Your task to perform on an android device: Search for the new nike air max 270 on Nike.com Image 0: 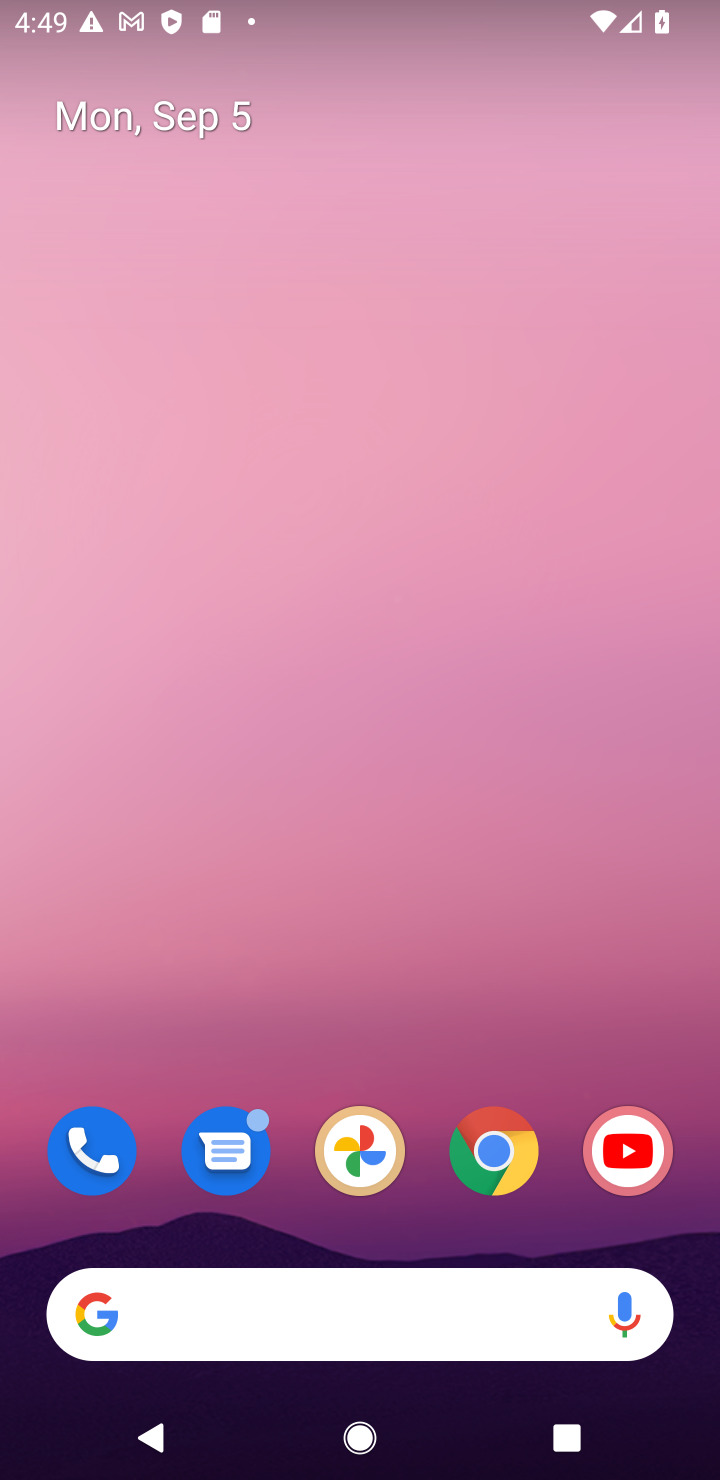
Step 0: click (488, 533)
Your task to perform on an android device: Search for the new nike air max 270 on Nike.com Image 1: 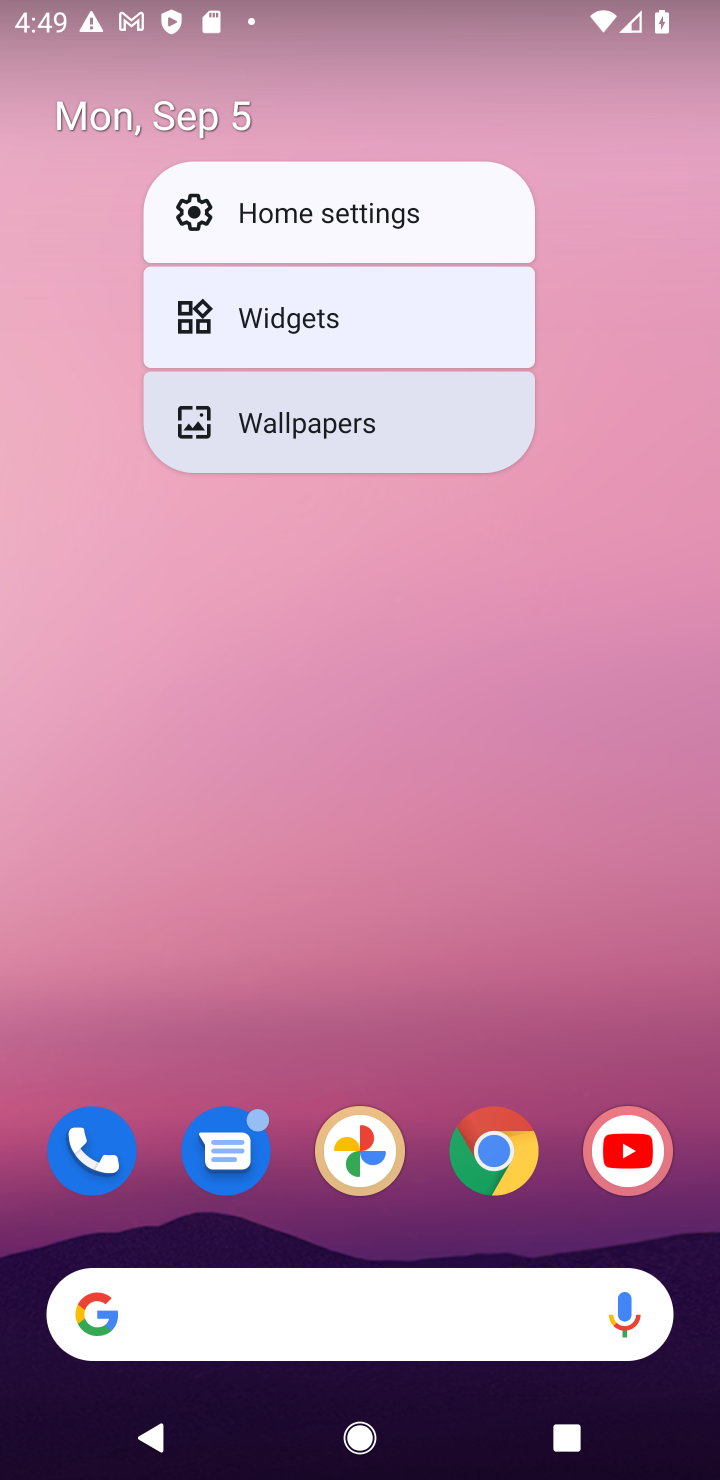
Step 1: click (525, 1173)
Your task to perform on an android device: Search for the new nike air max 270 on Nike.com Image 2: 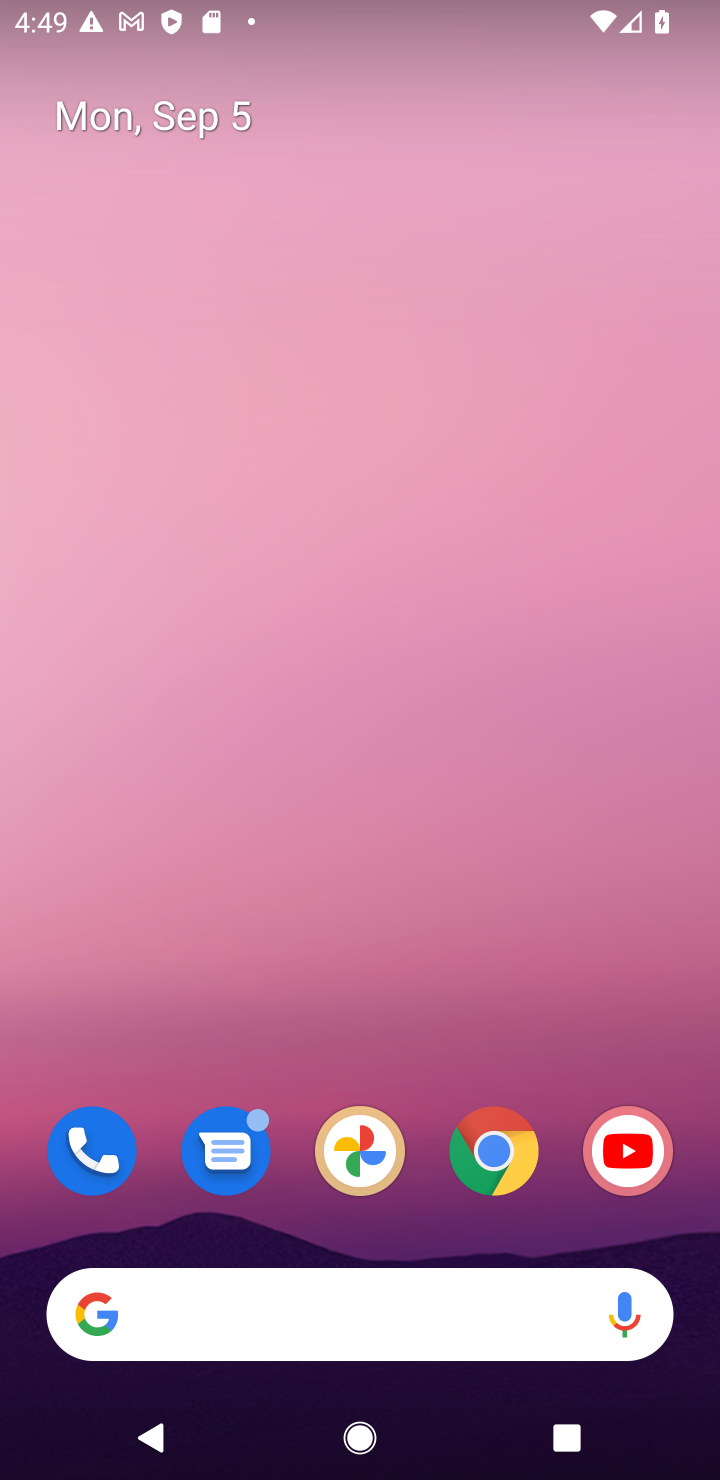
Step 2: click (525, 1173)
Your task to perform on an android device: Search for the new nike air max 270 on Nike.com Image 3: 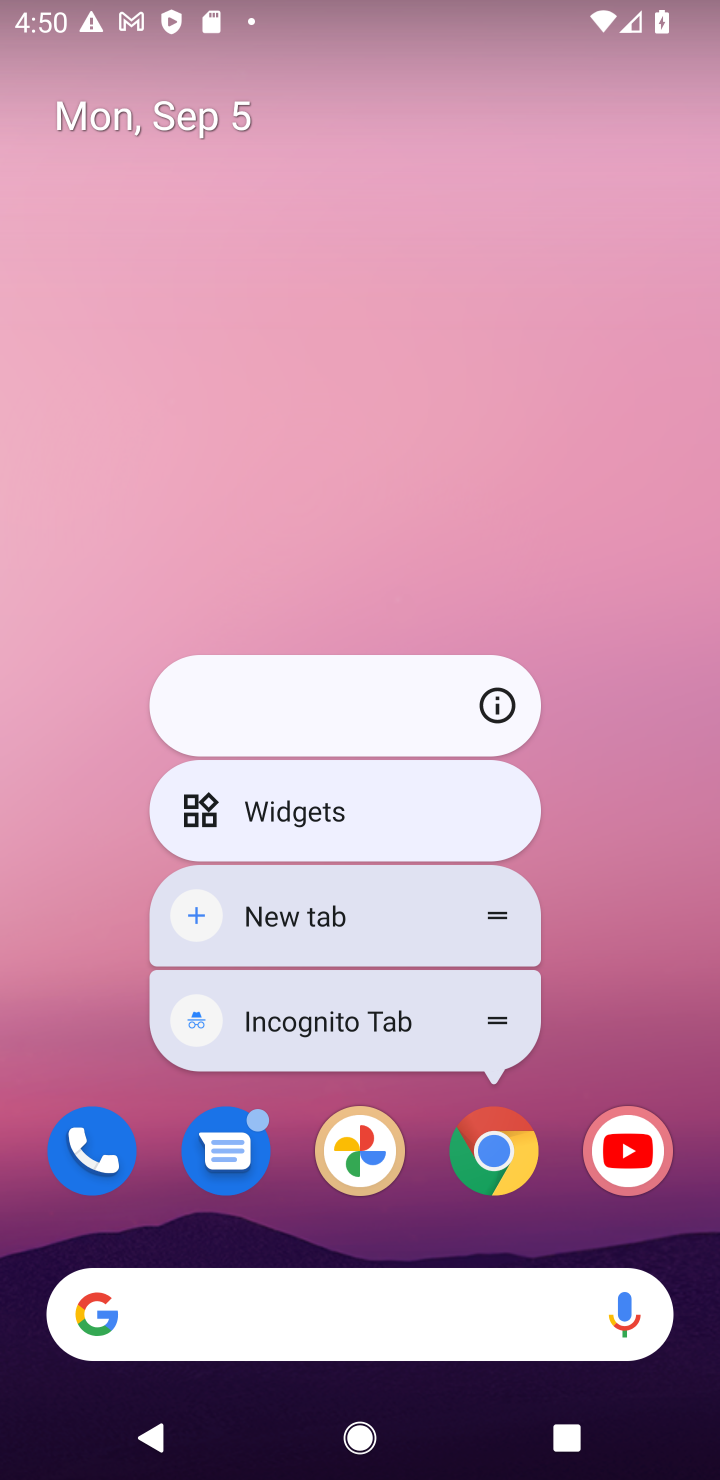
Step 3: click (491, 1190)
Your task to perform on an android device: Search for the new nike air max 270 on Nike.com Image 4: 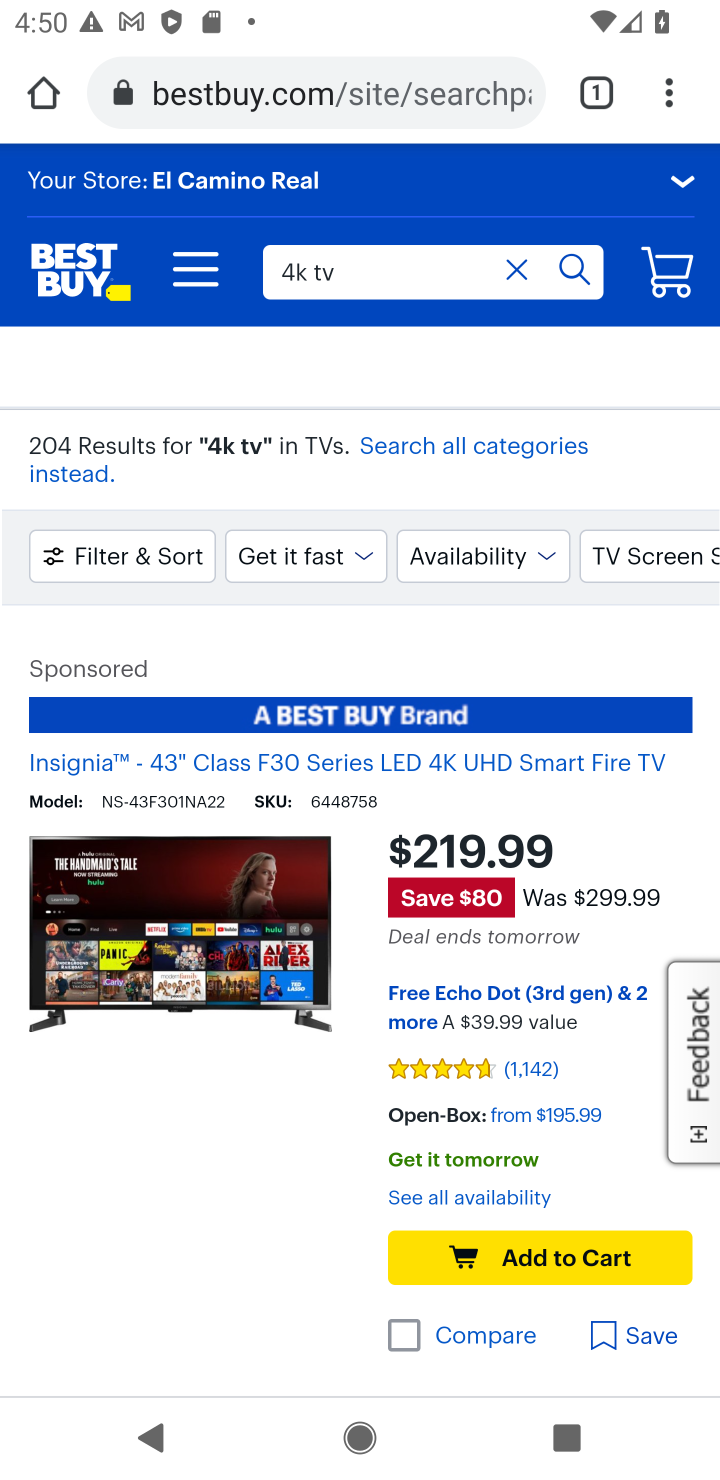
Step 4: click (446, 84)
Your task to perform on an android device: Search for the new nike air max 270 on Nike.com Image 5: 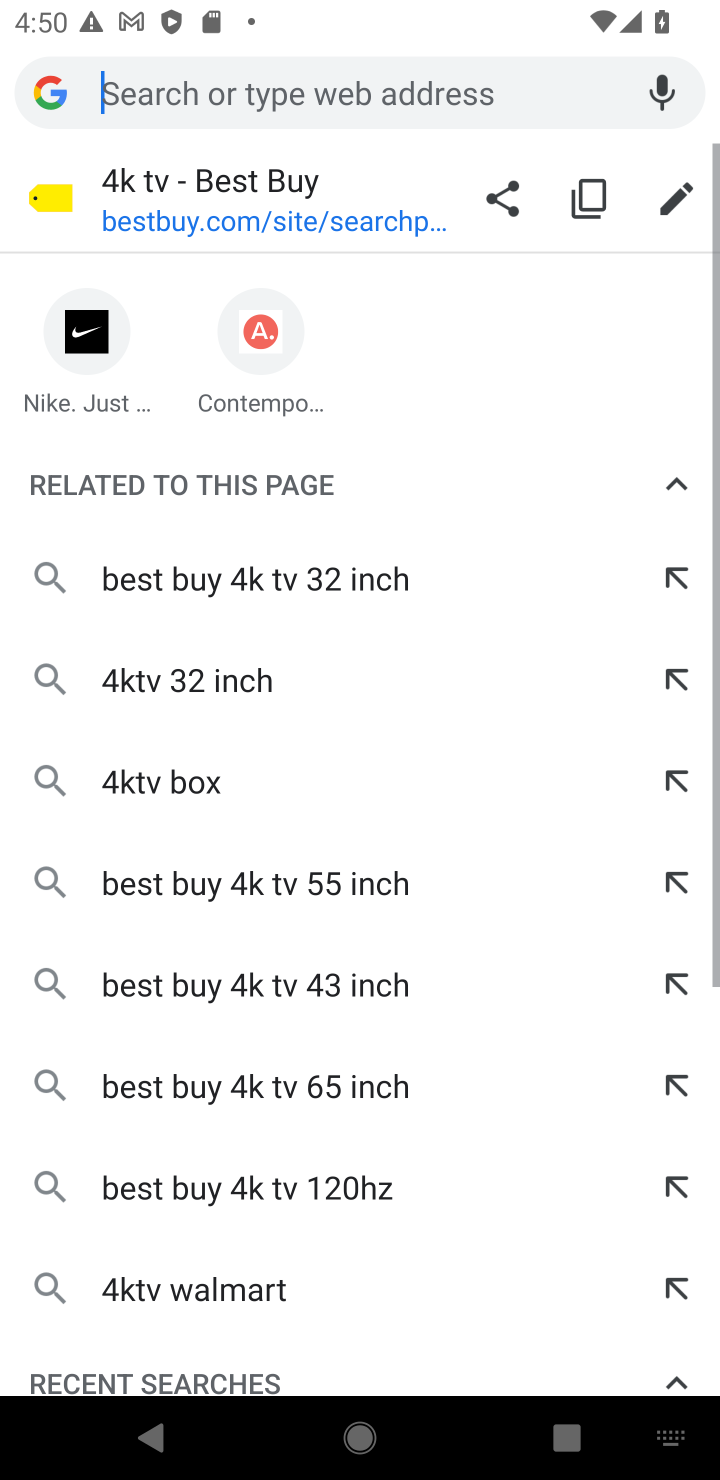
Step 5: click (446, 84)
Your task to perform on an android device: Search for the new nike air max 270 on Nike.com Image 6: 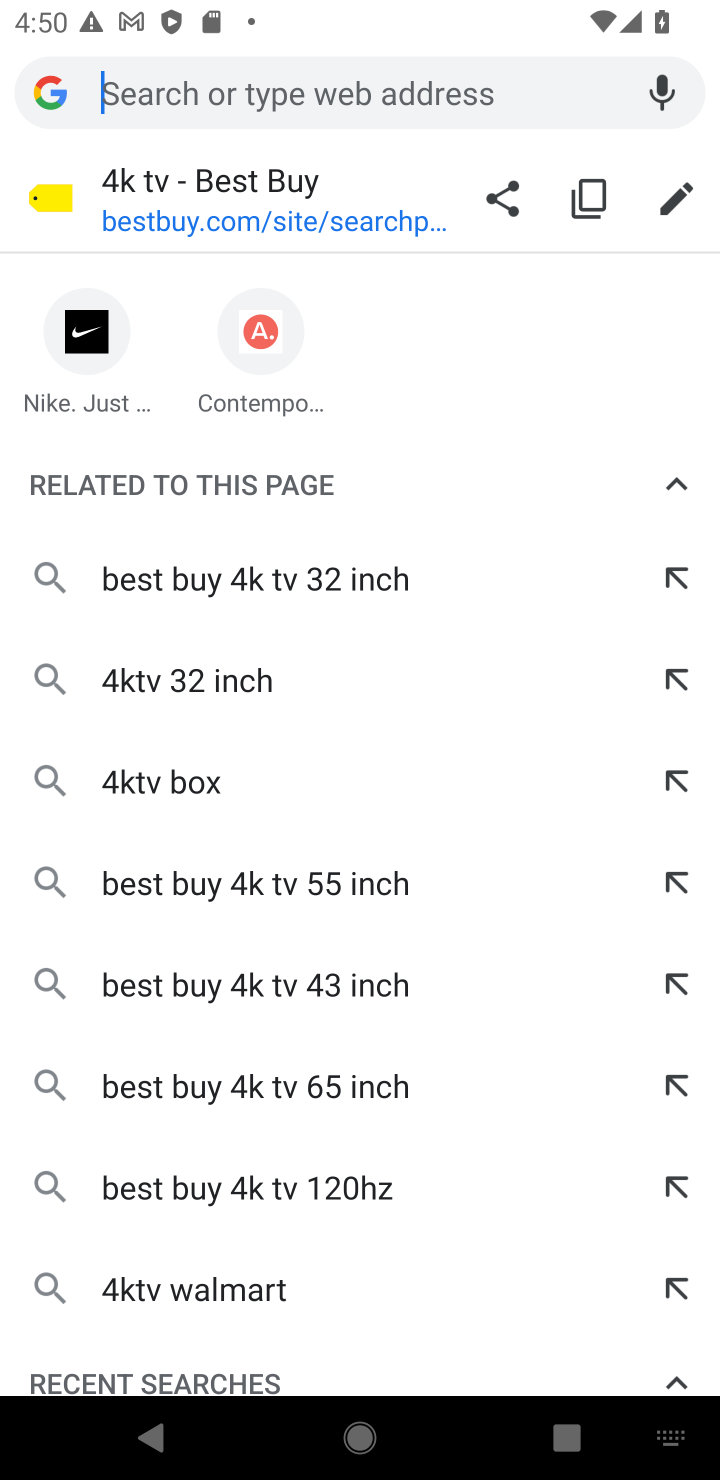
Step 6: type "nike.com"
Your task to perform on an android device: Search for the new nike air max 270 on Nike.com Image 7: 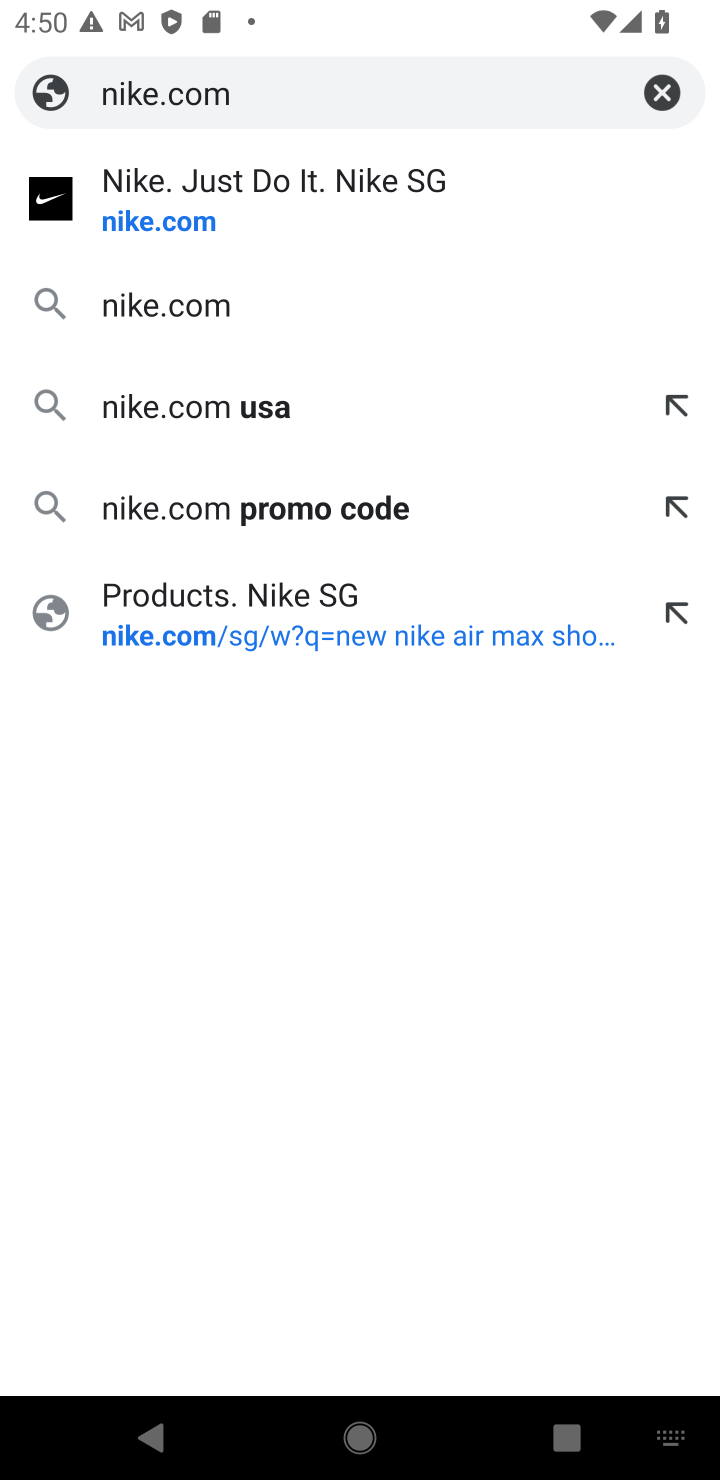
Step 7: click (322, 203)
Your task to perform on an android device: Search for the new nike air max 270 on Nike.com Image 8: 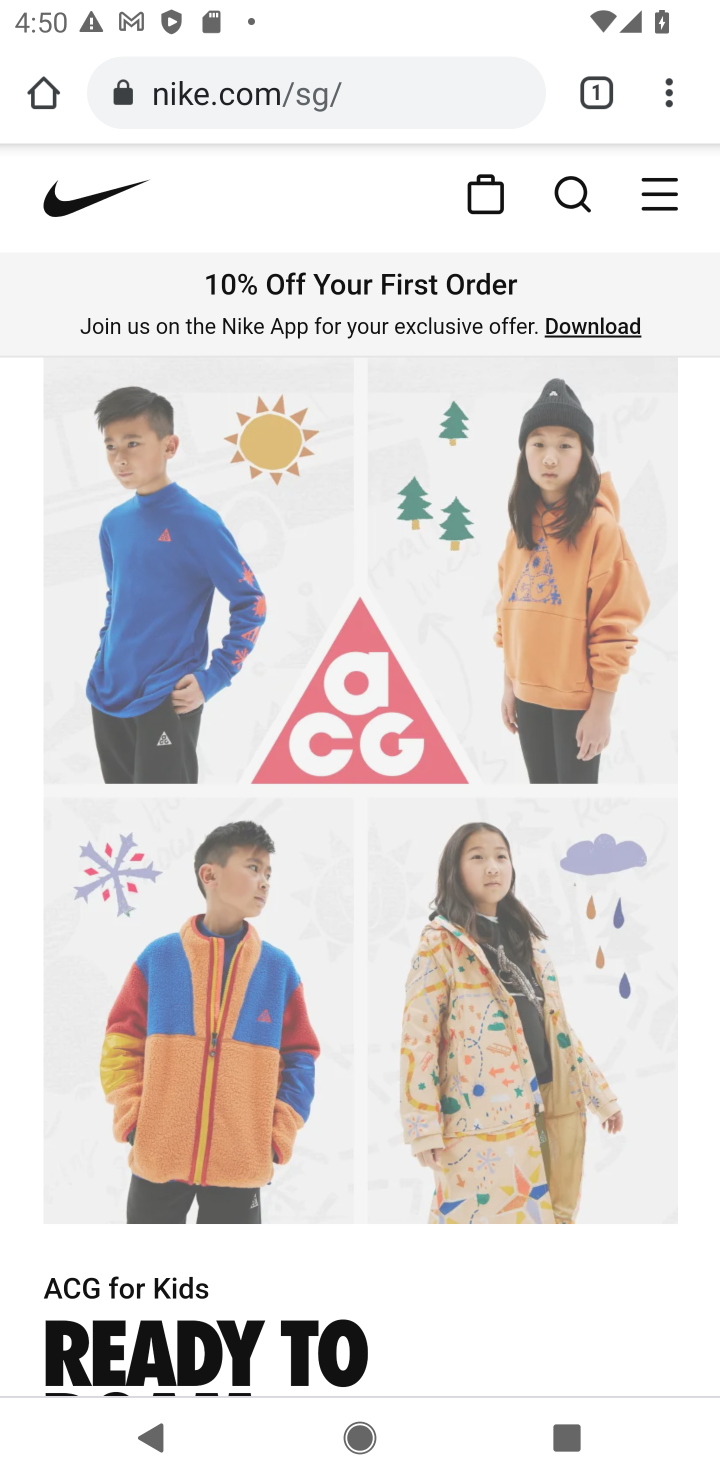
Step 8: click (574, 191)
Your task to perform on an android device: Search for the new nike air max 270 on Nike.com Image 9: 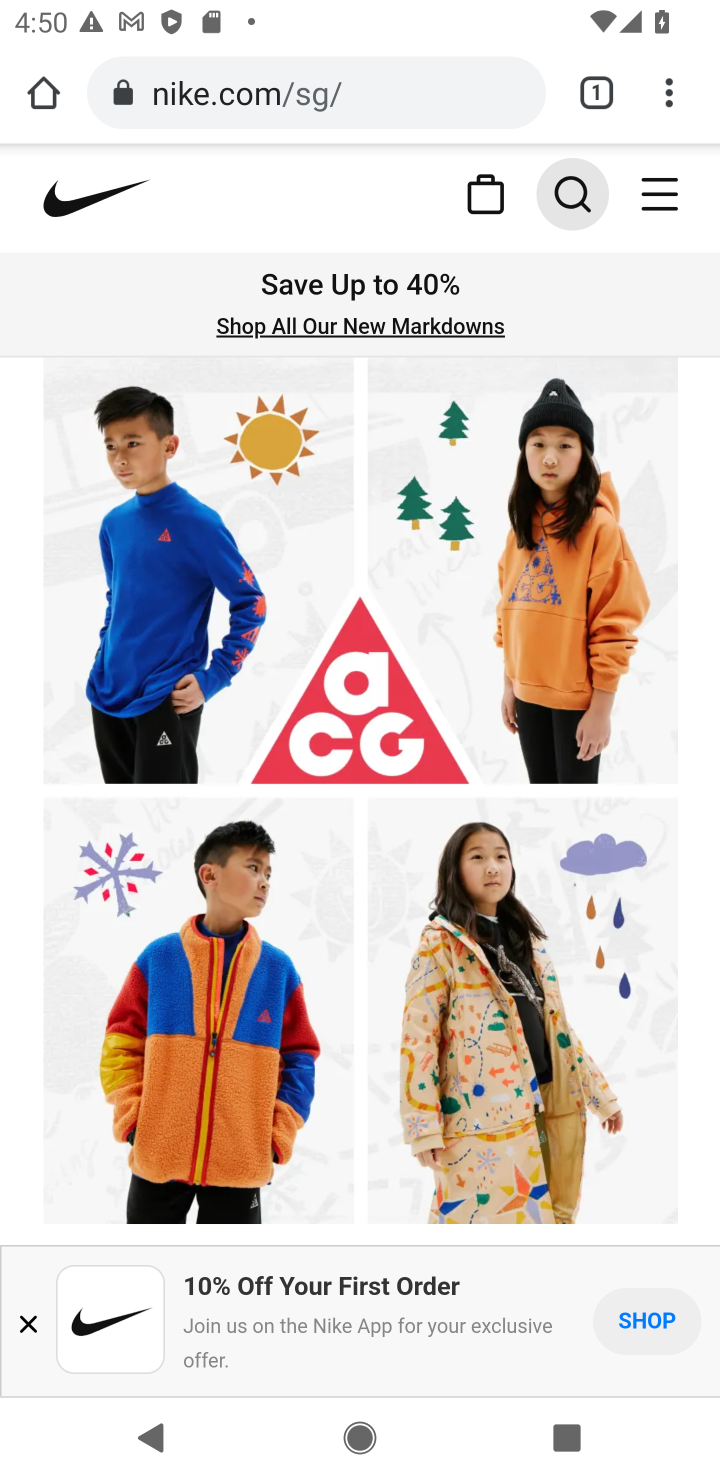
Step 9: click (587, 212)
Your task to perform on an android device: Search for the new nike air max 270 on Nike.com Image 10: 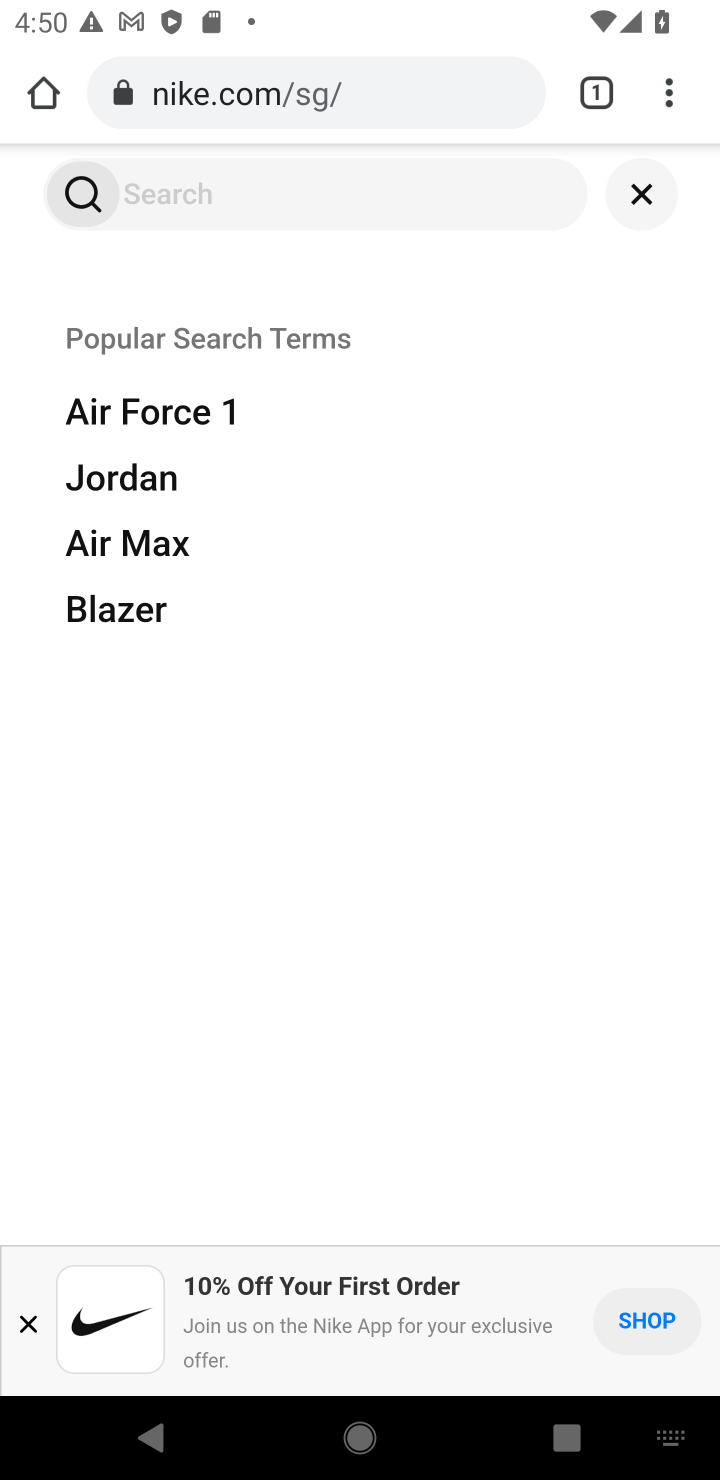
Step 10: type "new nike air max 270"
Your task to perform on an android device: Search for the new nike air max 270 on Nike.com Image 11: 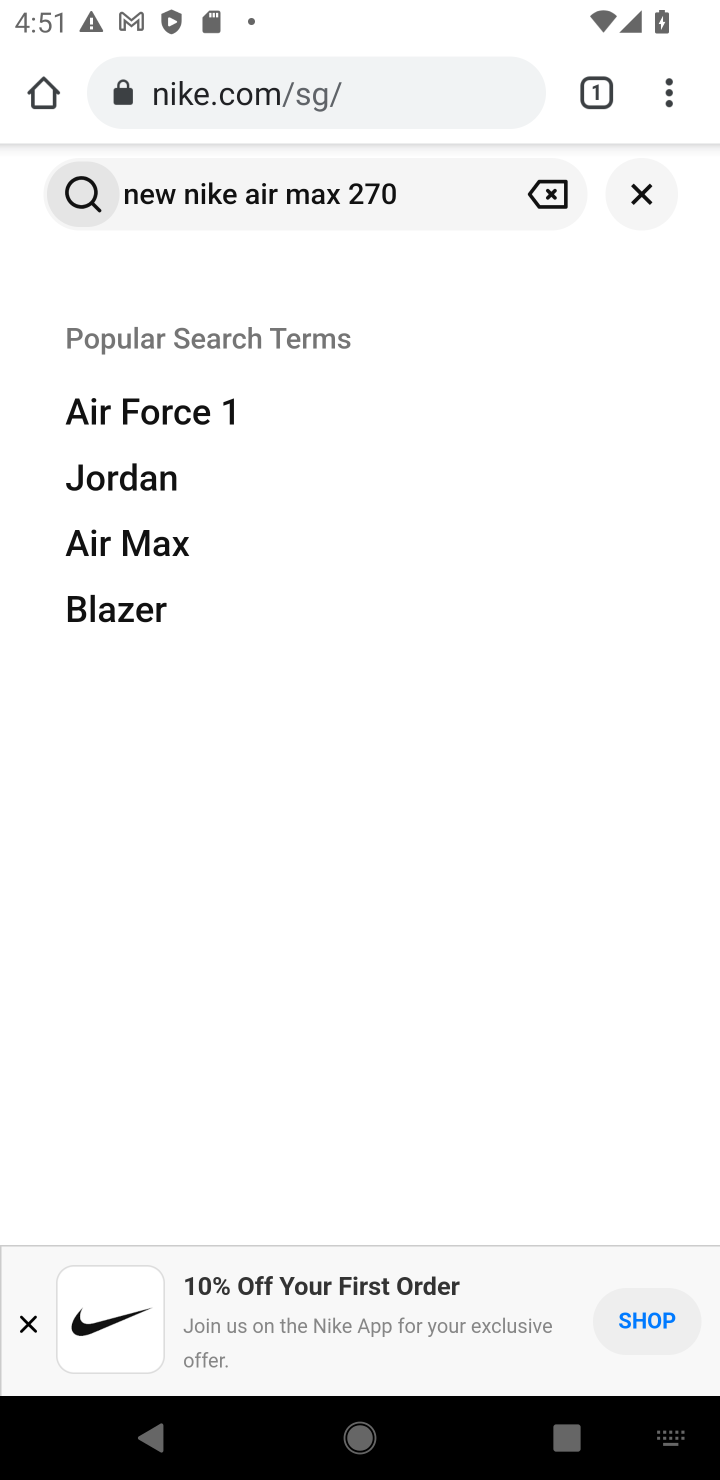
Step 11: click (76, 209)
Your task to perform on an android device: Search for the new nike air max 270 on Nike.com Image 12: 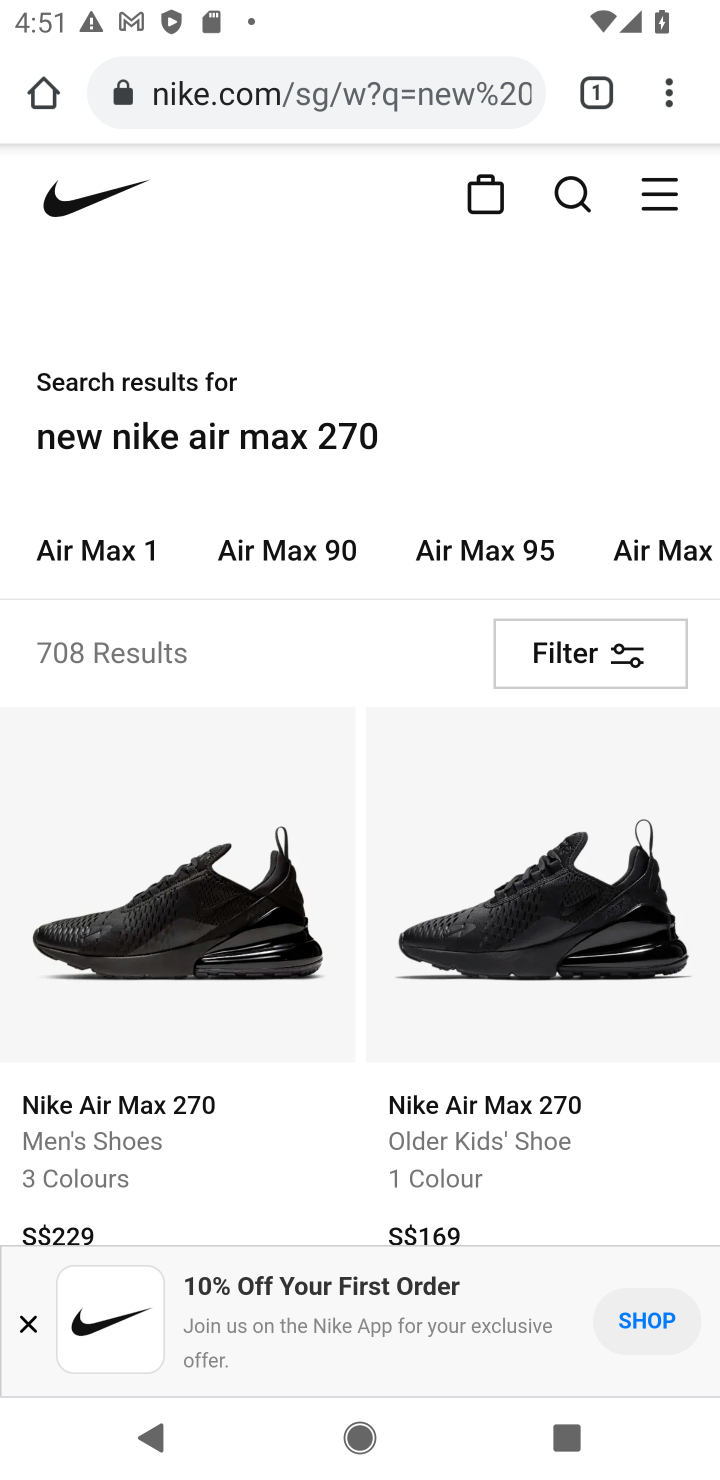
Step 12: task complete